Your task to perform on an android device: Open Maps and search for coffee Image 0: 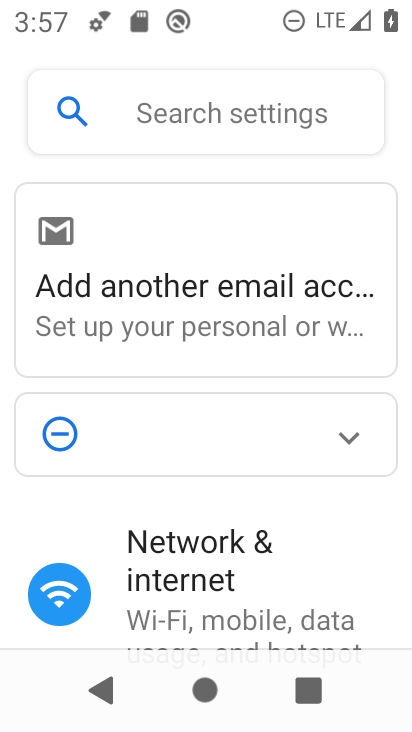
Step 0: press home button
Your task to perform on an android device: Open Maps and search for coffee Image 1: 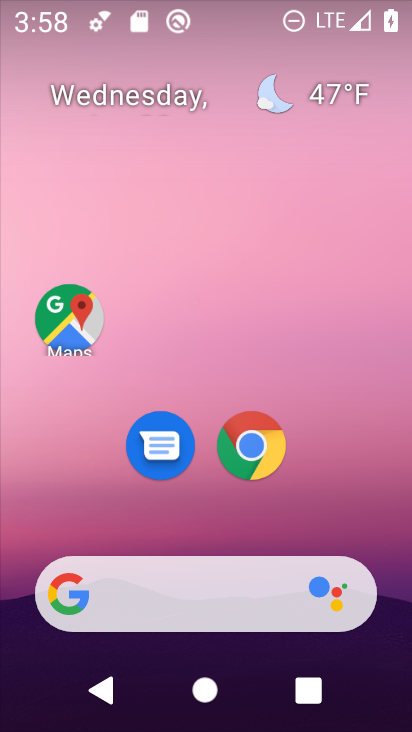
Step 1: click (68, 319)
Your task to perform on an android device: Open Maps and search for coffee Image 2: 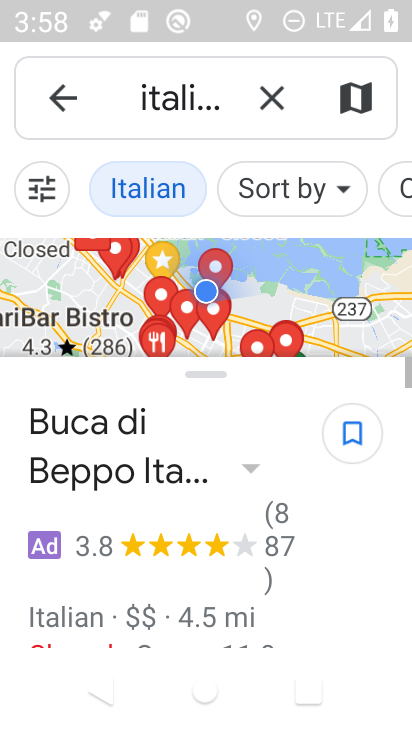
Step 2: click (271, 98)
Your task to perform on an android device: Open Maps and search for coffee Image 3: 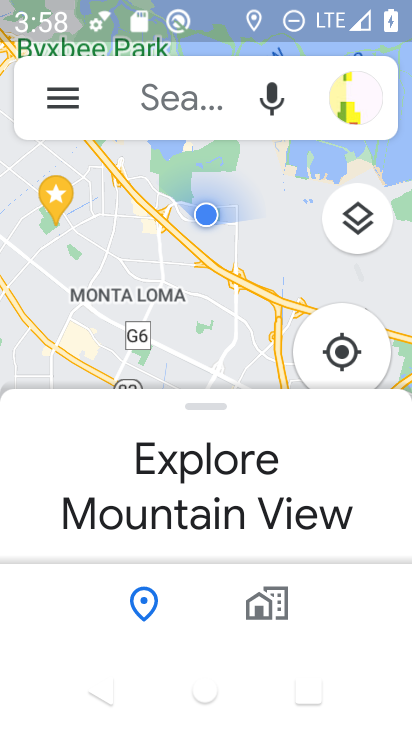
Step 3: click (223, 99)
Your task to perform on an android device: Open Maps and search for coffee Image 4: 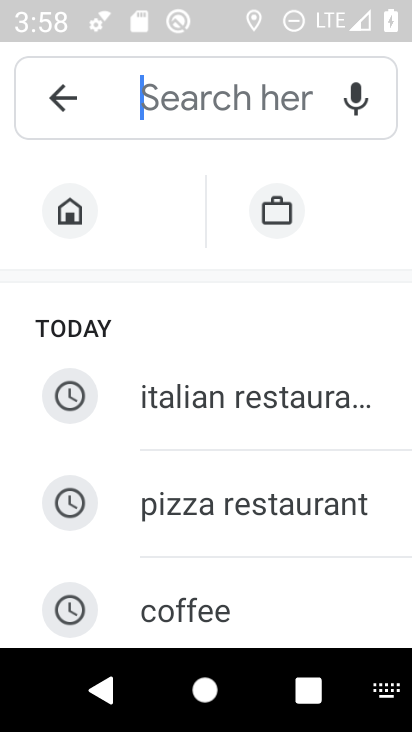
Step 4: type "coffee"
Your task to perform on an android device: Open Maps and search for coffee Image 5: 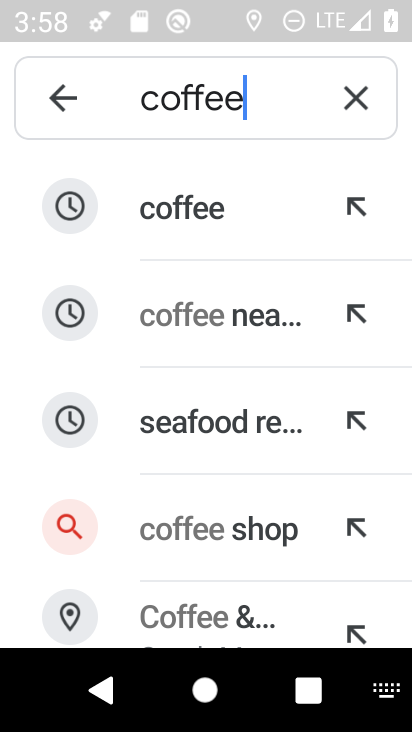
Step 5: click (187, 215)
Your task to perform on an android device: Open Maps and search for coffee Image 6: 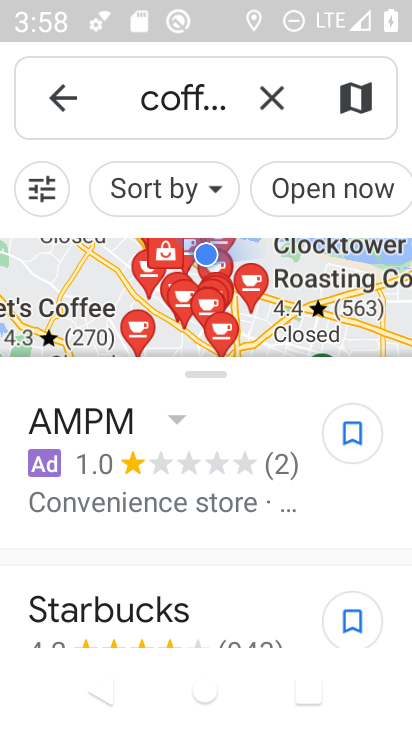
Step 6: task complete